Your task to perform on an android device: turn vacation reply on in the gmail app Image 0: 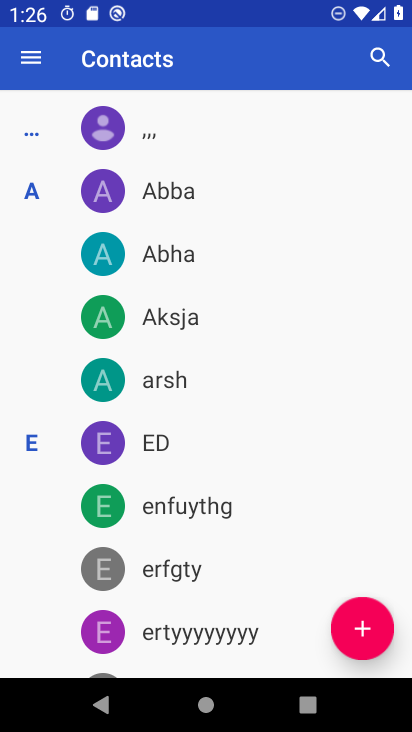
Step 0: press home button
Your task to perform on an android device: turn vacation reply on in the gmail app Image 1: 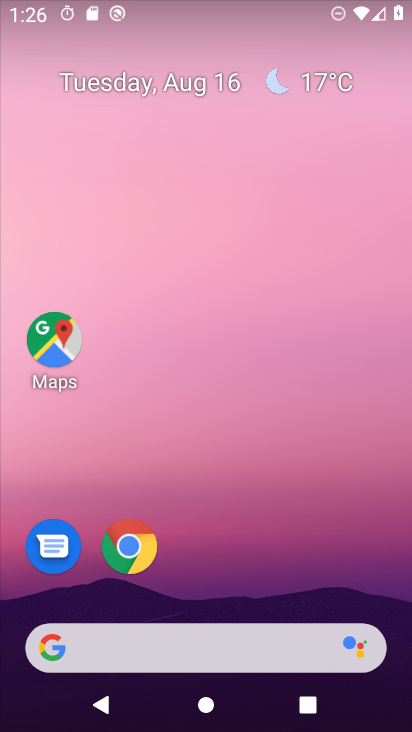
Step 1: drag from (217, 602) to (175, 135)
Your task to perform on an android device: turn vacation reply on in the gmail app Image 2: 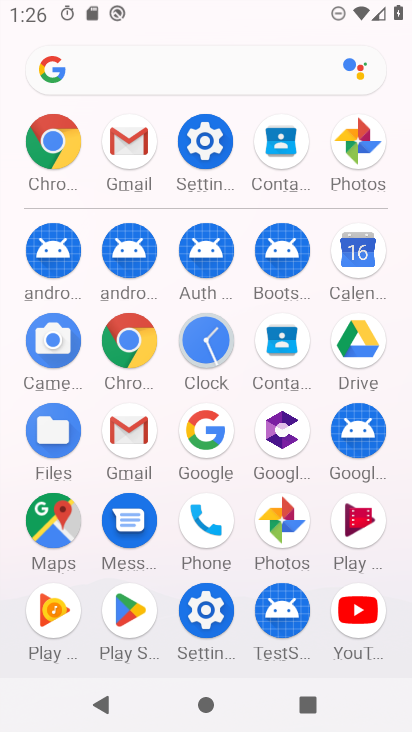
Step 2: click (134, 418)
Your task to perform on an android device: turn vacation reply on in the gmail app Image 3: 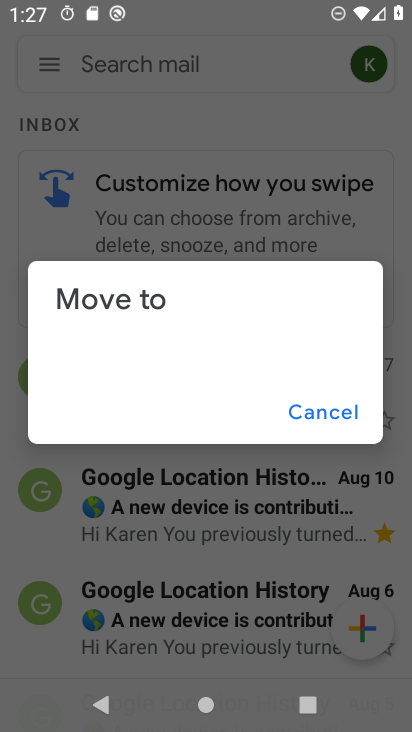
Step 3: click (342, 408)
Your task to perform on an android device: turn vacation reply on in the gmail app Image 4: 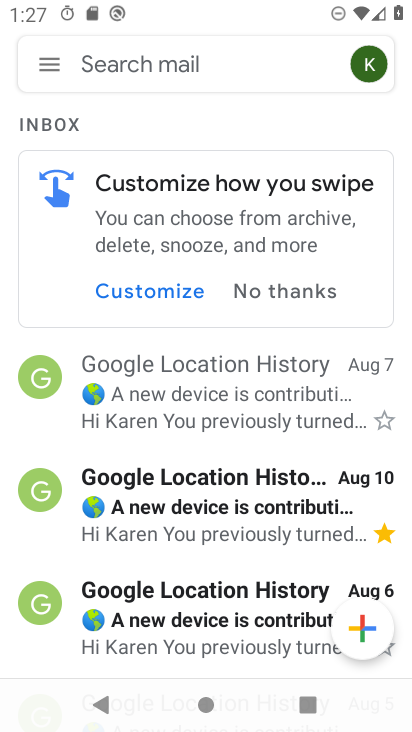
Step 4: click (50, 66)
Your task to perform on an android device: turn vacation reply on in the gmail app Image 5: 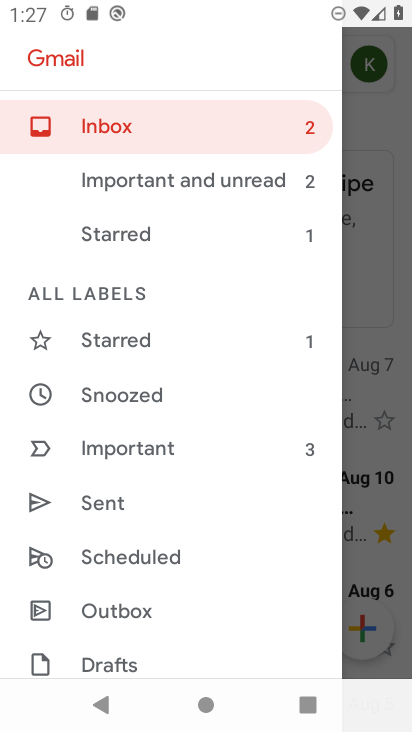
Step 5: drag from (136, 660) to (99, 290)
Your task to perform on an android device: turn vacation reply on in the gmail app Image 6: 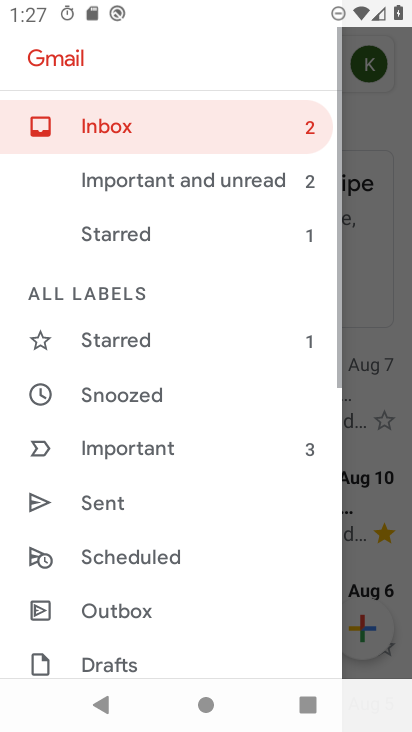
Step 6: drag from (107, 646) to (107, 305)
Your task to perform on an android device: turn vacation reply on in the gmail app Image 7: 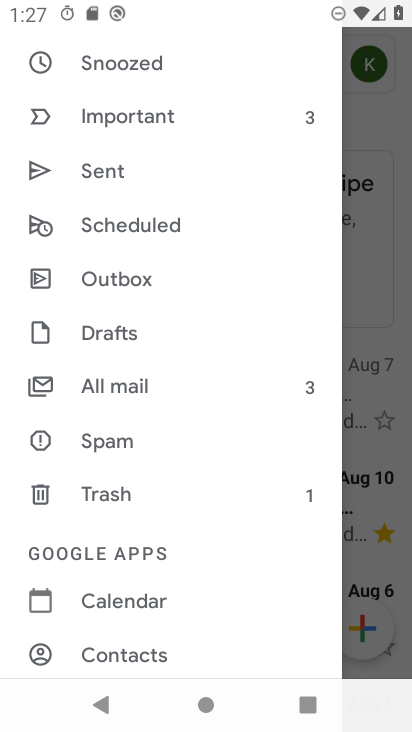
Step 7: drag from (131, 622) to (131, 267)
Your task to perform on an android device: turn vacation reply on in the gmail app Image 8: 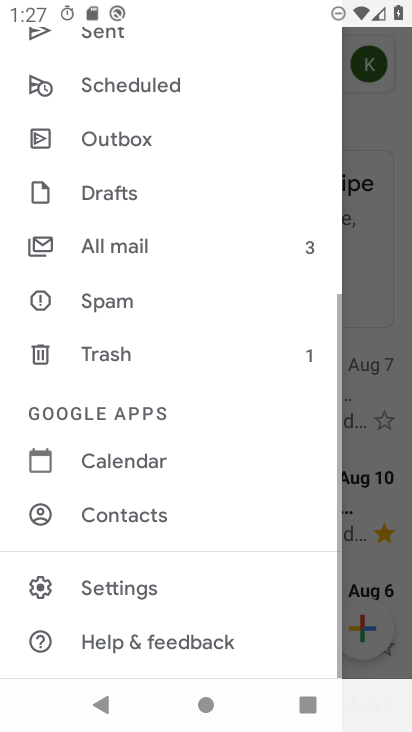
Step 8: click (121, 582)
Your task to perform on an android device: turn vacation reply on in the gmail app Image 9: 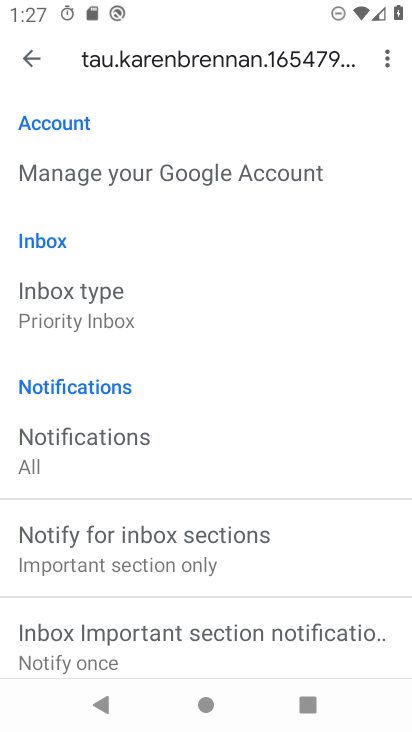
Step 9: drag from (144, 617) to (142, 293)
Your task to perform on an android device: turn vacation reply on in the gmail app Image 10: 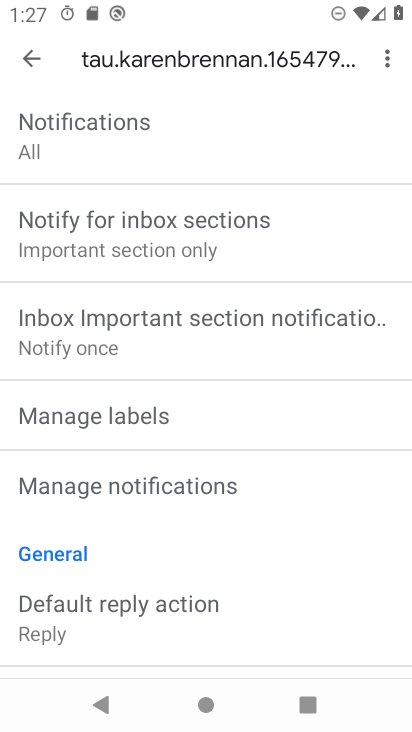
Step 10: drag from (191, 623) to (183, 226)
Your task to perform on an android device: turn vacation reply on in the gmail app Image 11: 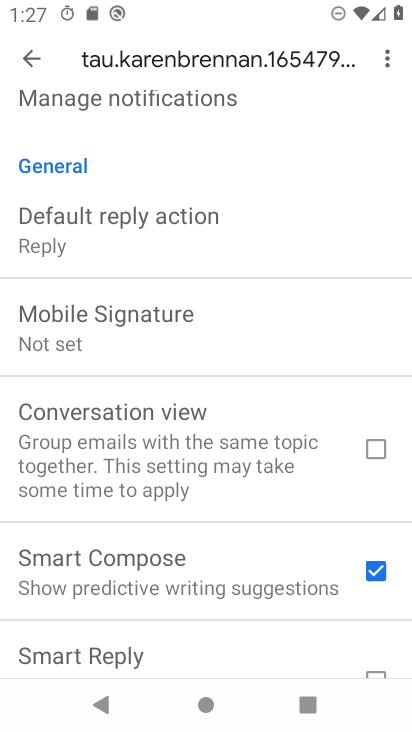
Step 11: drag from (258, 636) to (237, 391)
Your task to perform on an android device: turn vacation reply on in the gmail app Image 12: 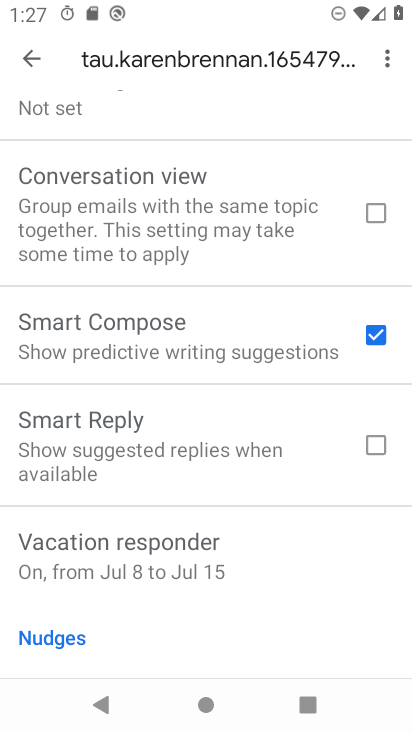
Step 12: click (163, 553)
Your task to perform on an android device: turn vacation reply on in the gmail app Image 13: 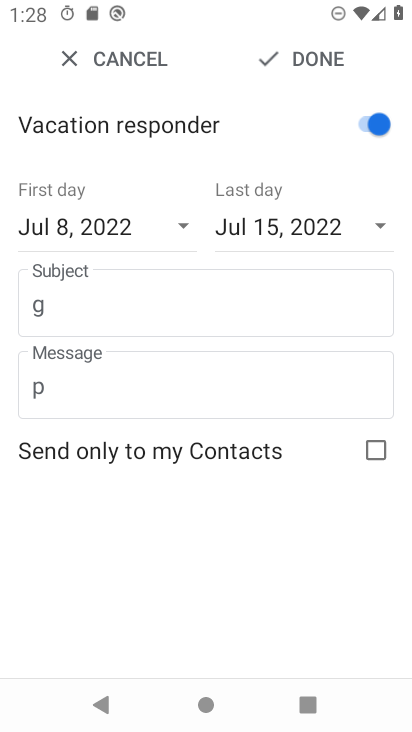
Step 13: task complete